Your task to perform on an android device: Open calendar and show me the second week of next month Image 0: 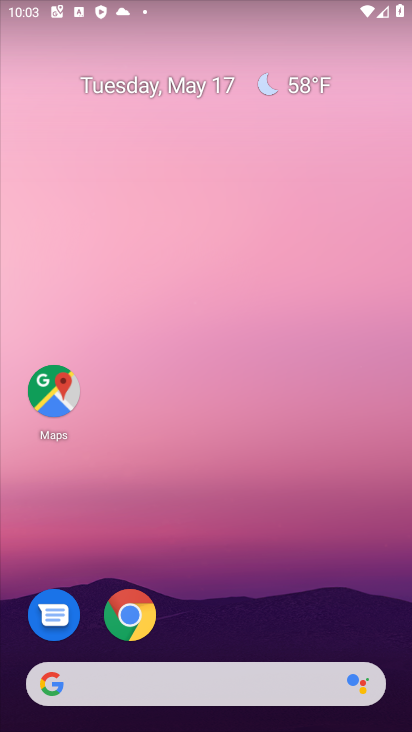
Step 0: drag from (383, 636) to (358, 57)
Your task to perform on an android device: Open calendar and show me the second week of next month Image 1: 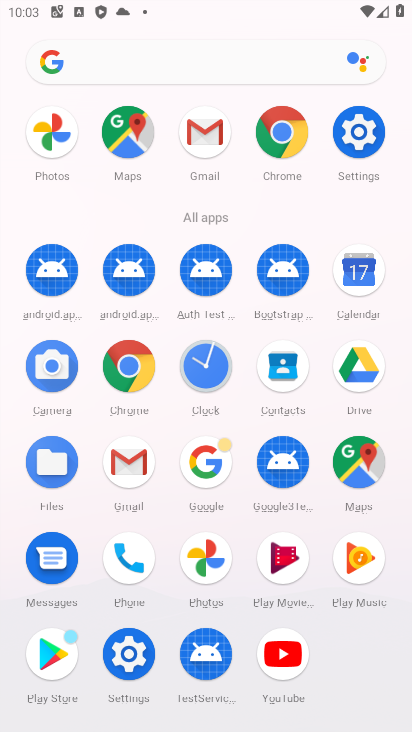
Step 1: click (358, 269)
Your task to perform on an android device: Open calendar and show me the second week of next month Image 2: 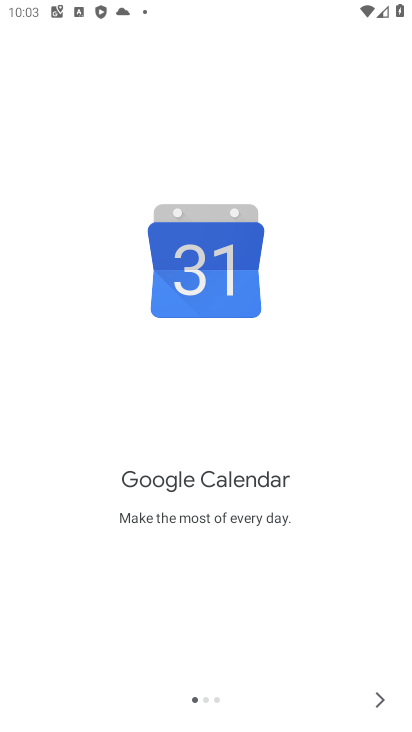
Step 2: click (377, 697)
Your task to perform on an android device: Open calendar and show me the second week of next month Image 3: 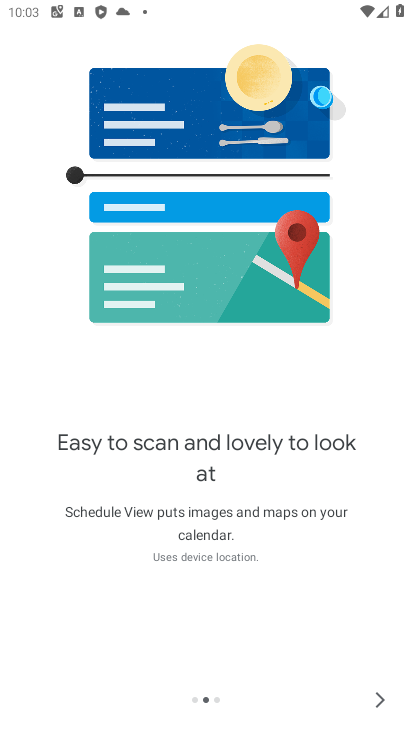
Step 3: click (377, 697)
Your task to perform on an android device: Open calendar and show me the second week of next month Image 4: 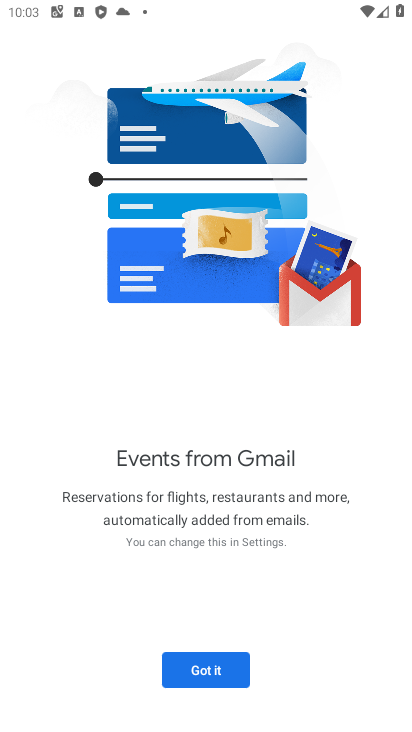
Step 4: click (187, 668)
Your task to perform on an android device: Open calendar and show me the second week of next month Image 5: 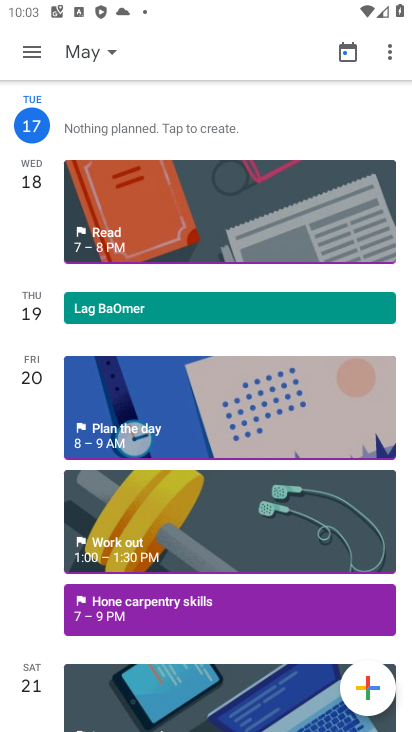
Step 5: click (30, 38)
Your task to perform on an android device: Open calendar and show me the second week of next month Image 6: 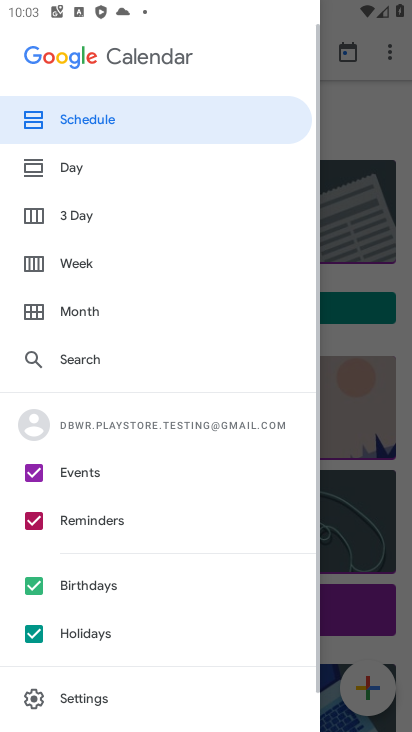
Step 6: click (86, 269)
Your task to perform on an android device: Open calendar and show me the second week of next month Image 7: 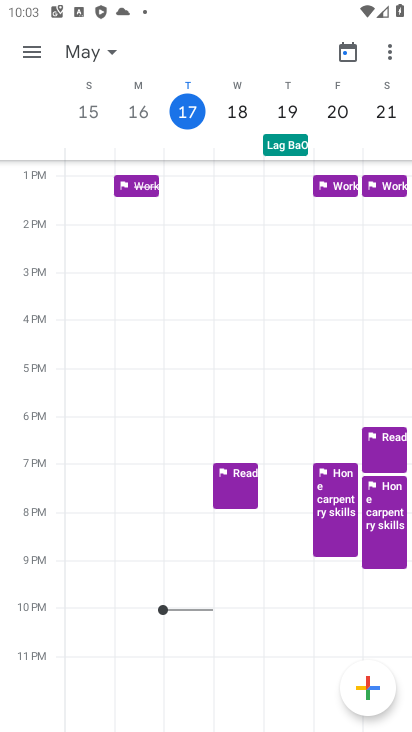
Step 7: click (113, 51)
Your task to perform on an android device: Open calendar and show me the second week of next month Image 8: 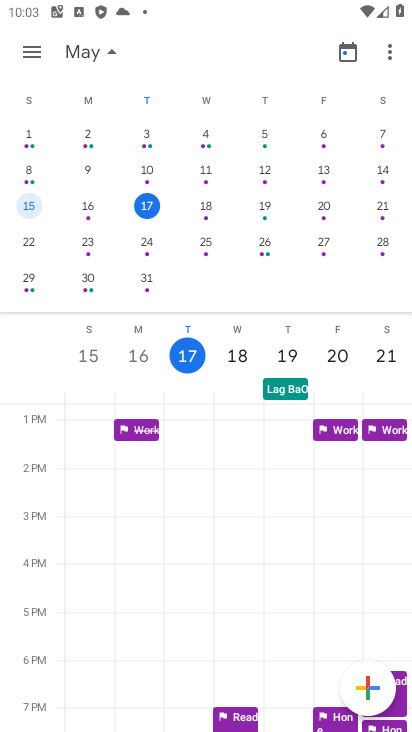
Step 8: drag from (384, 207) to (38, 169)
Your task to perform on an android device: Open calendar and show me the second week of next month Image 9: 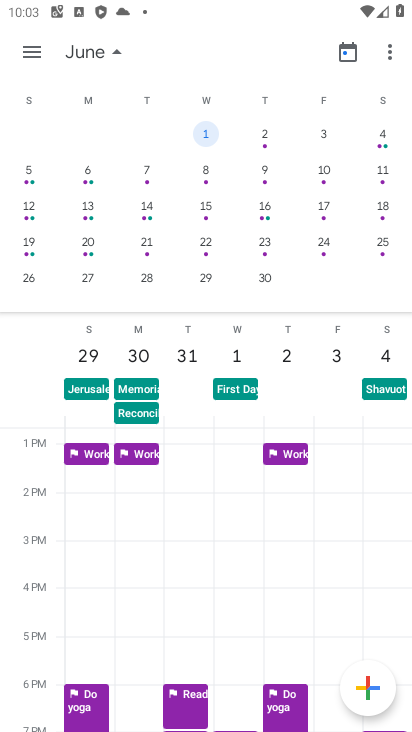
Step 9: click (25, 164)
Your task to perform on an android device: Open calendar and show me the second week of next month Image 10: 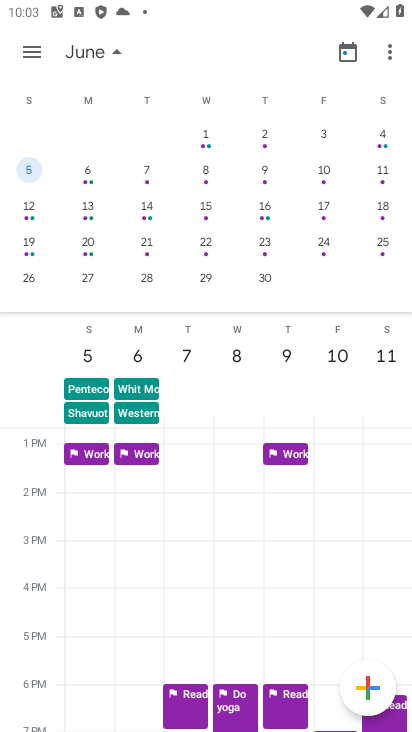
Step 10: task complete